Your task to perform on an android device: allow notifications from all sites in the chrome app Image 0: 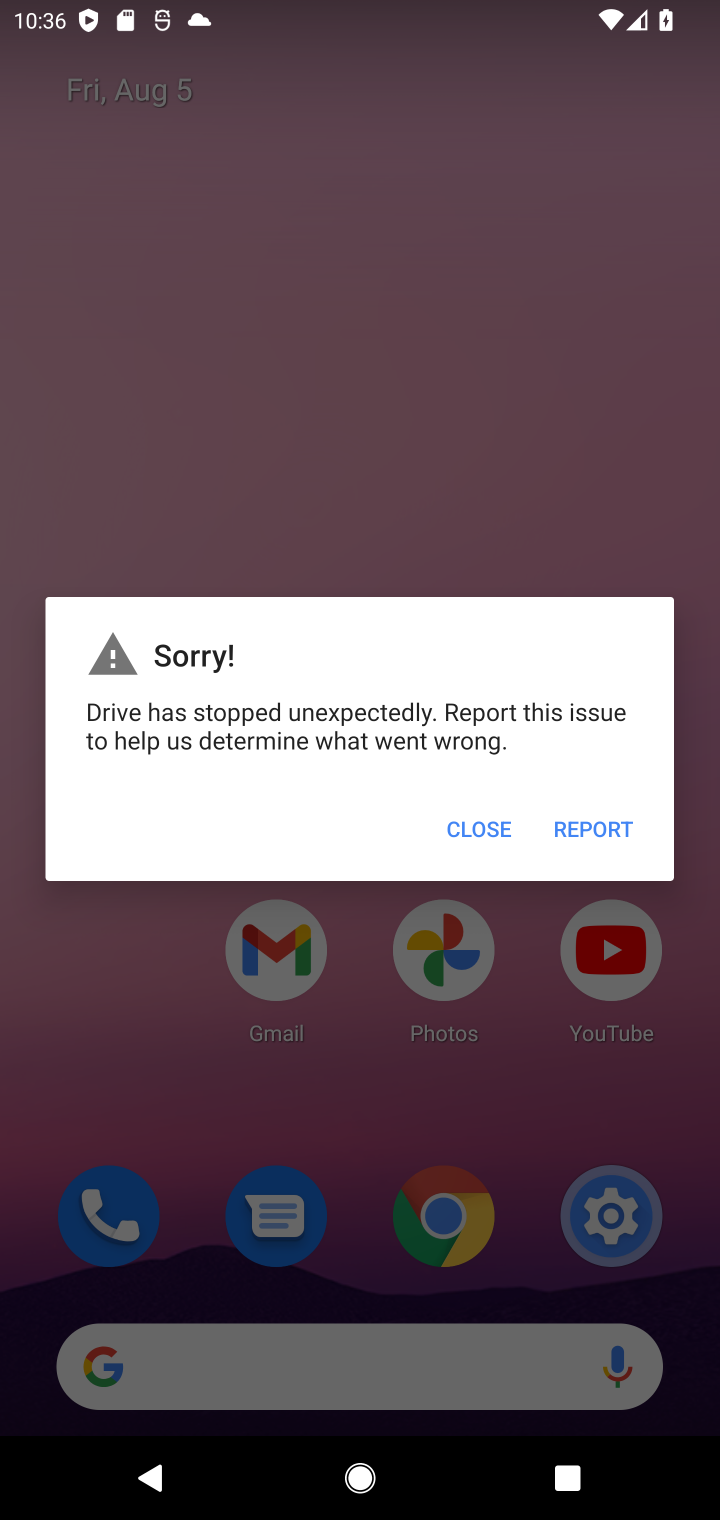
Step 0: click (489, 826)
Your task to perform on an android device: allow notifications from all sites in the chrome app Image 1: 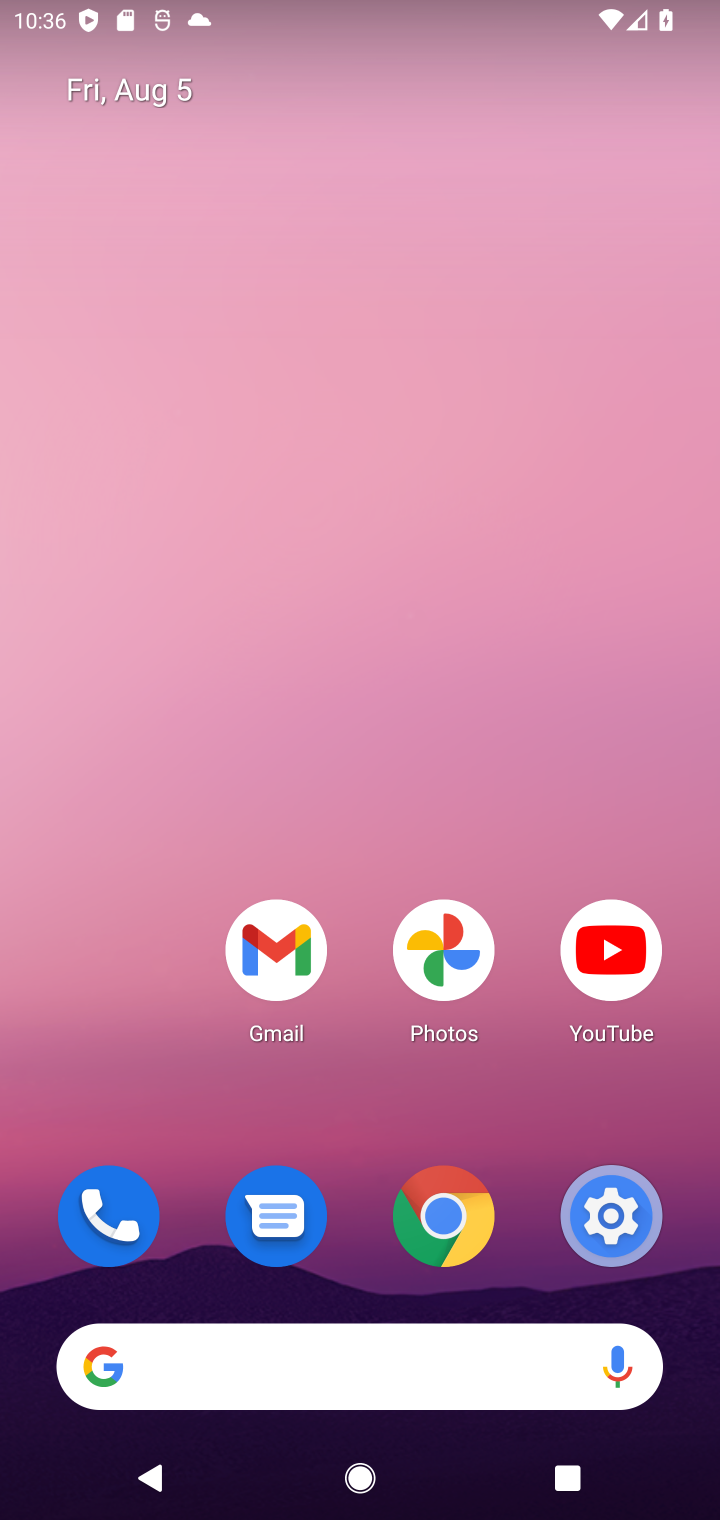
Step 1: drag from (471, 1368) to (459, 186)
Your task to perform on an android device: allow notifications from all sites in the chrome app Image 2: 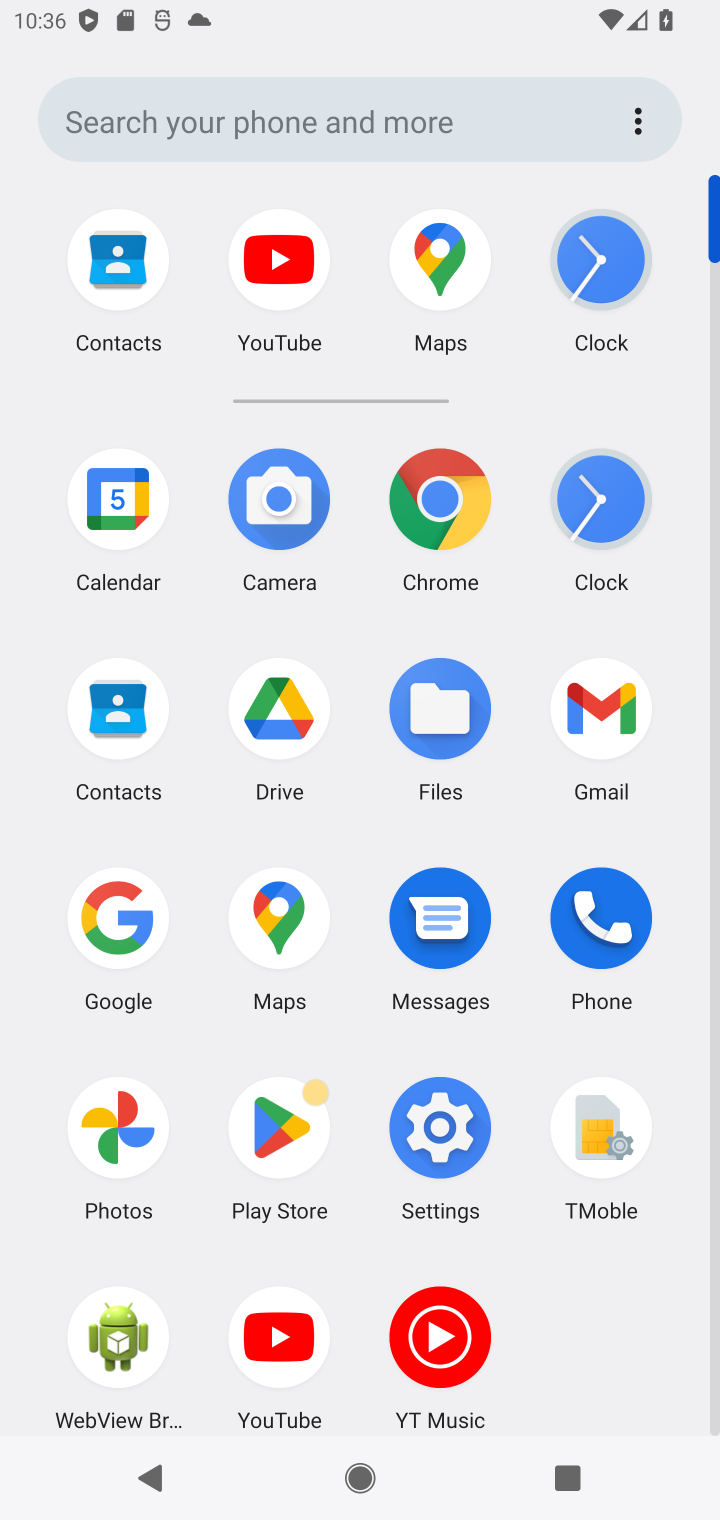
Step 2: click (441, 512)
Your task to perform on an android device: allow notifications from all sites in the chrome app Image 3: 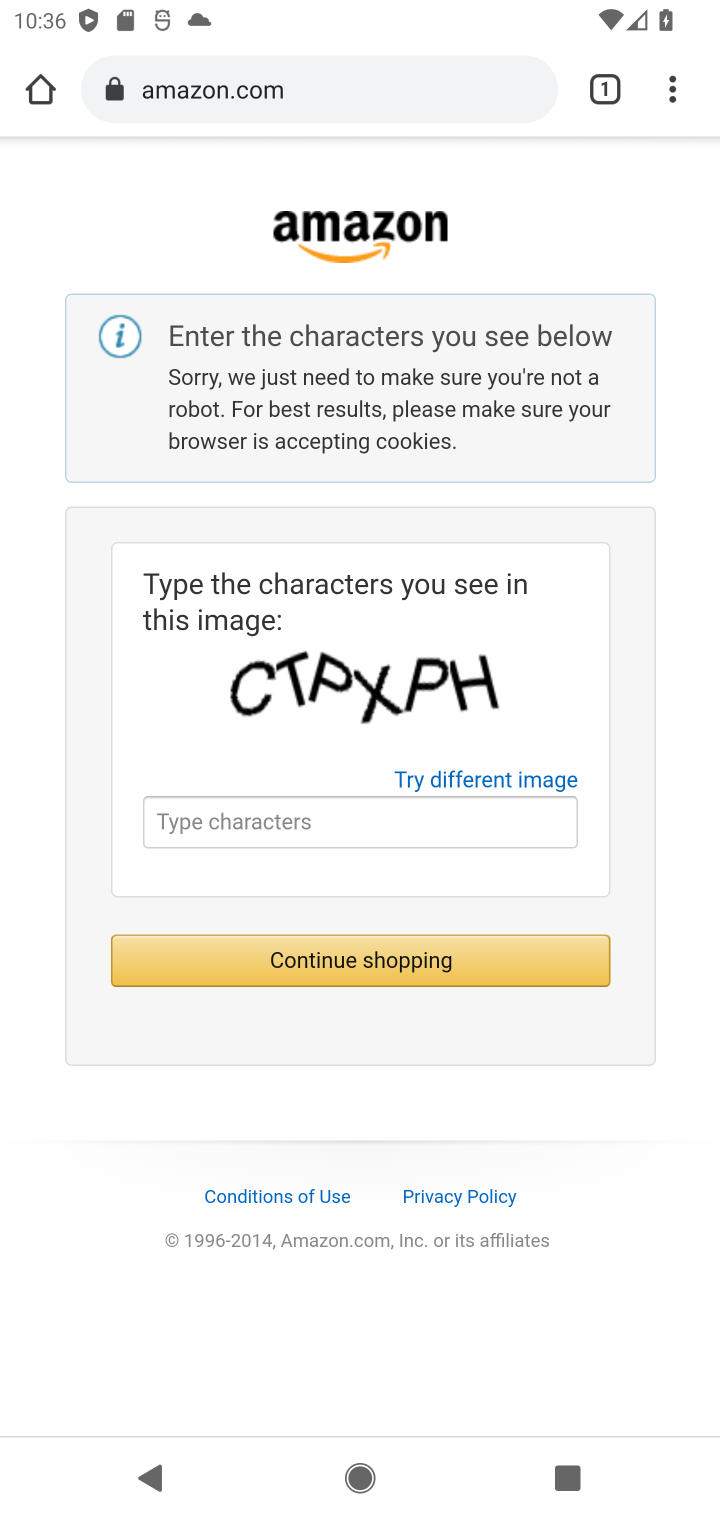
Step 3: drag from (673, 67) to (391, 1220)
Your task to perform on an android device: allow notifications from all sites in the chrome app Image 4: 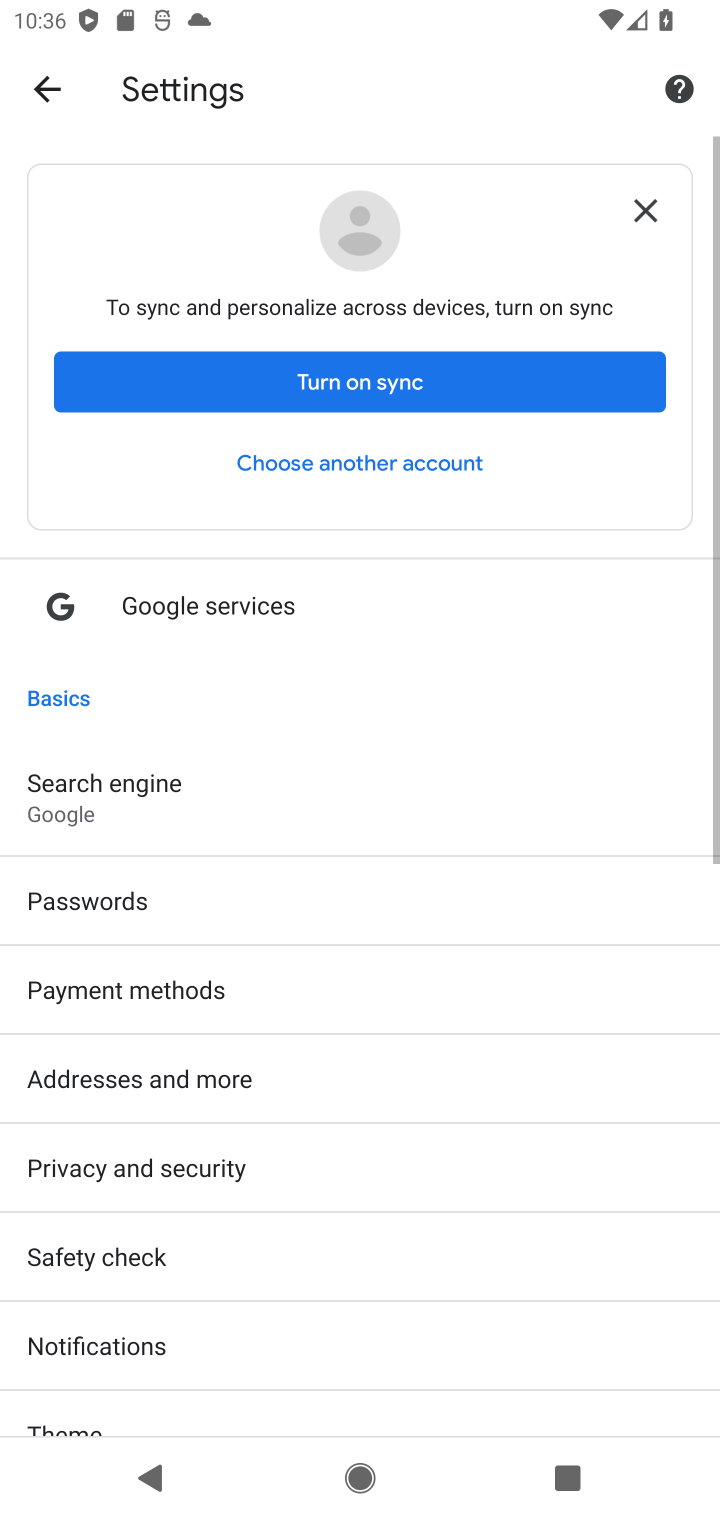
Step 4: drag from (236, 1370) to (296, 631)
Your task to perform on an android device: allow notifications from all sites in the chrome app Image 5: 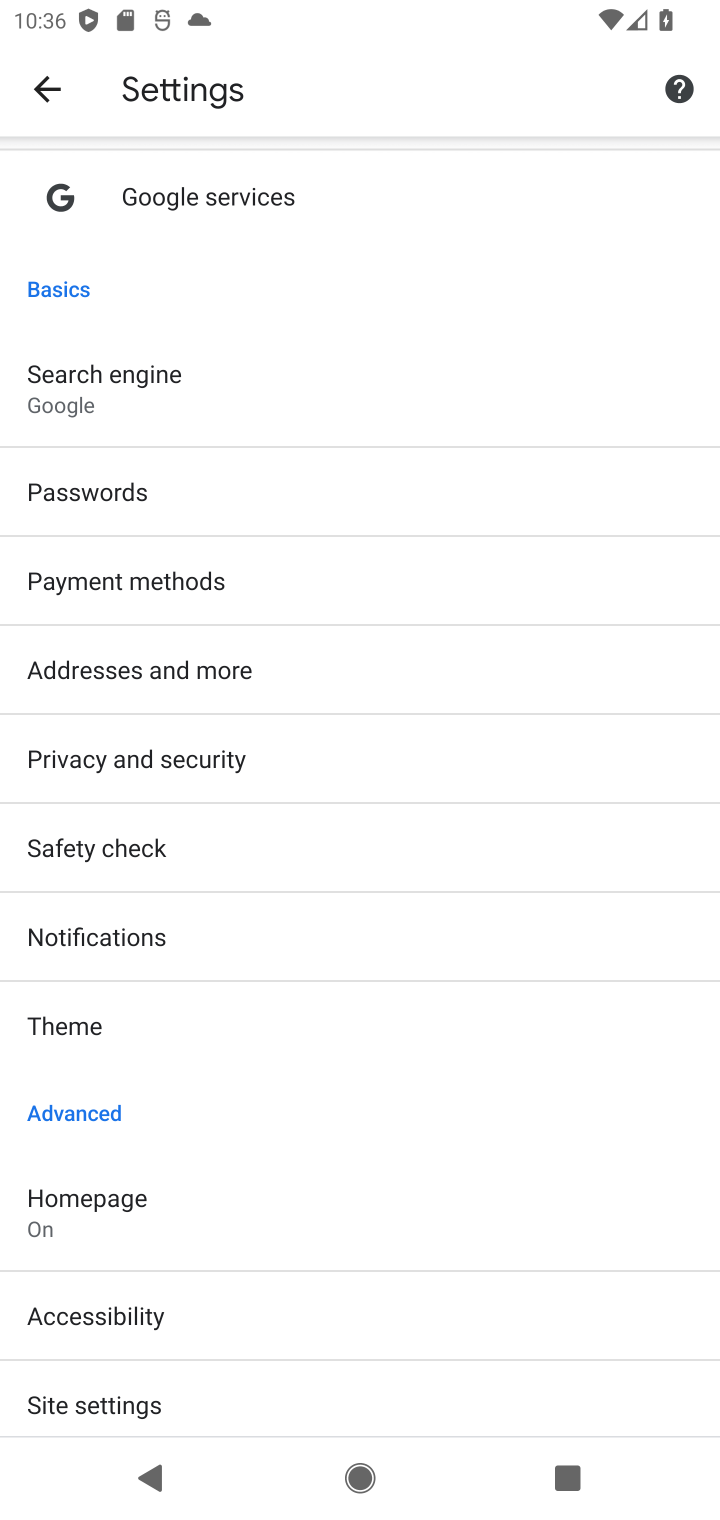
Step 5: drag from (222, 1307) to (253, 474)
Your task to perform on an android device: allow notifications from all sites in the chrome app Image 6: 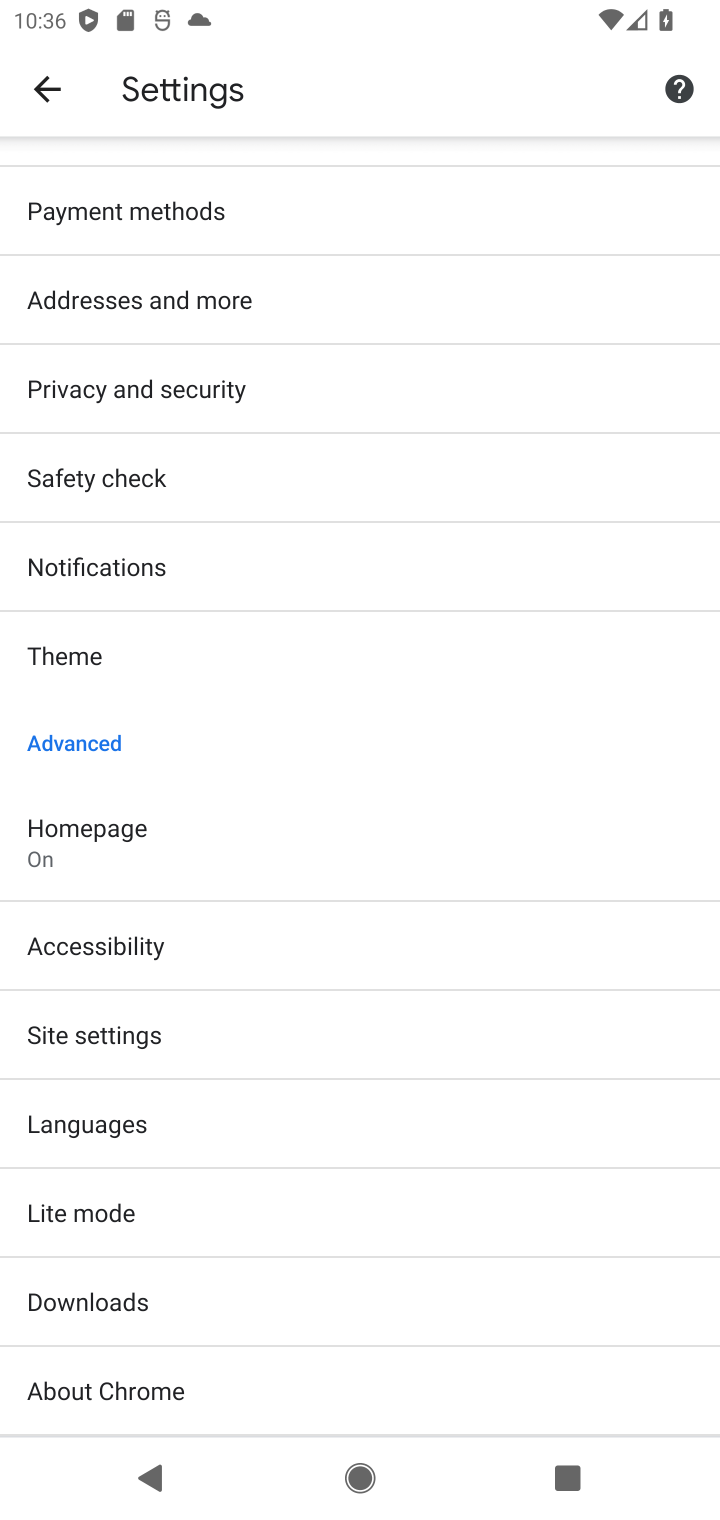
Step 6: click (135, 1042)
Your task to perform on an android device: allow notifications from all sites in the chrome app Image 7: 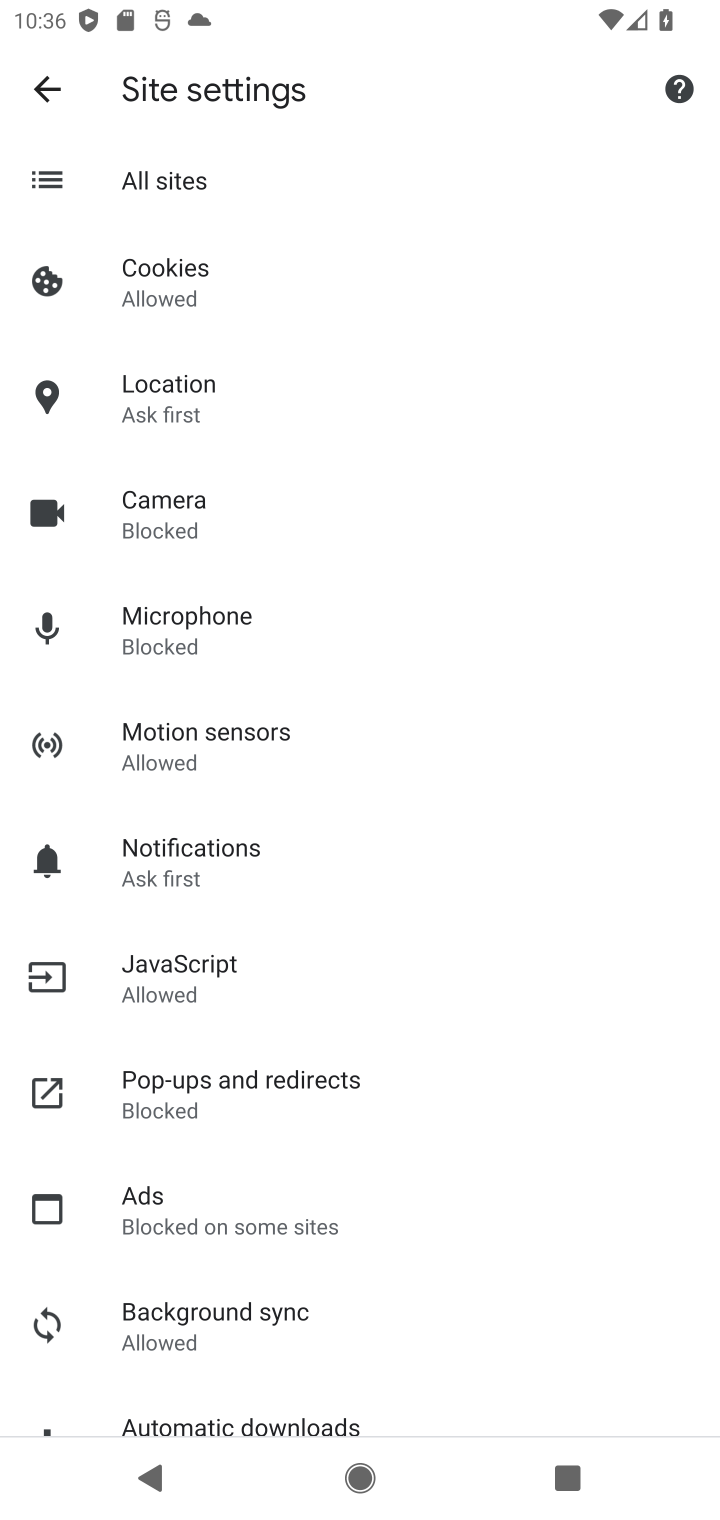
Step 7: click (209, 846)
Your task to perform on an android device: allow notifications from all sites in the chrome app Image 8: 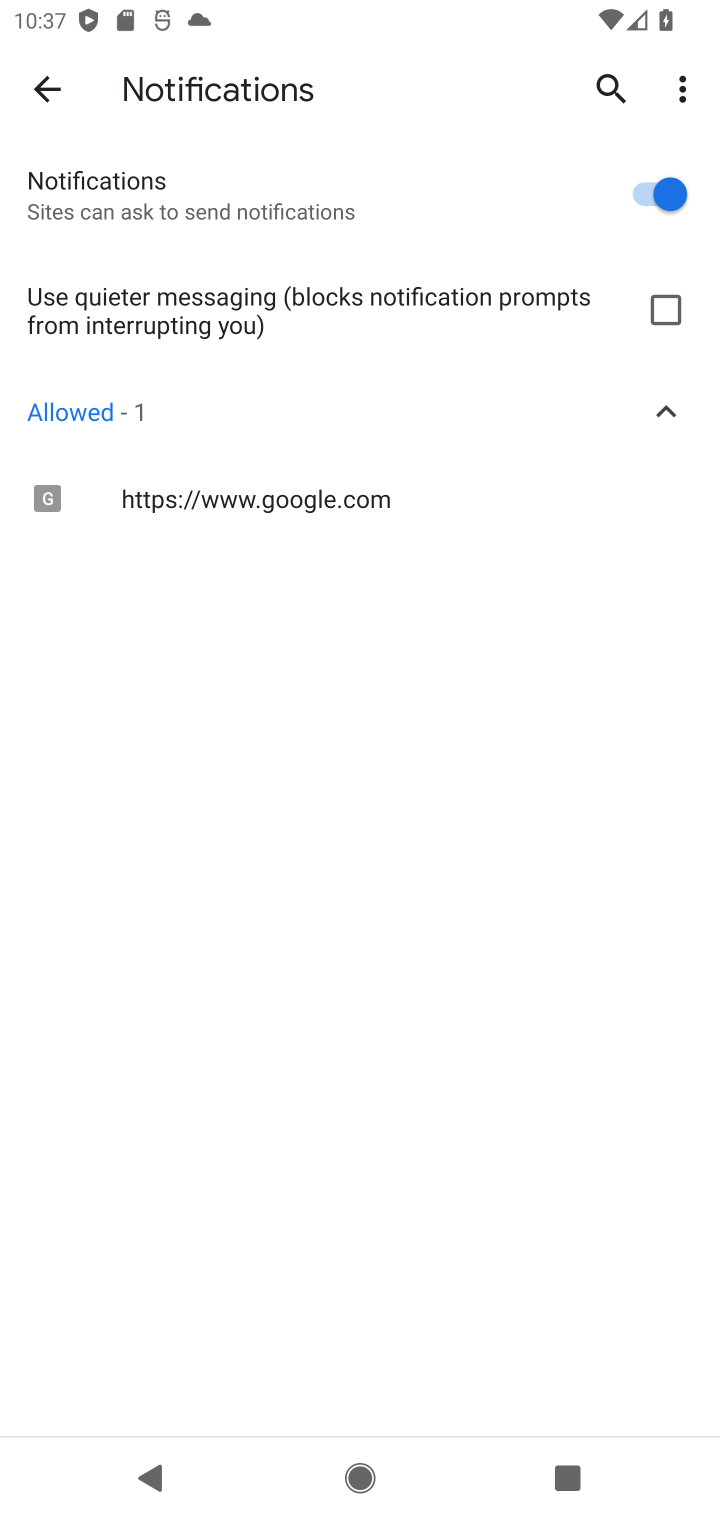
Step 8: task complete